Your task to perform on an android device: turn on translation in the chrome app Image 0: 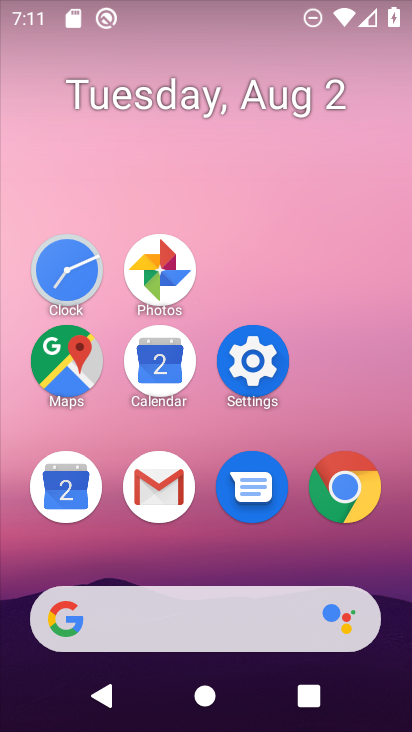
Step 0: click (339, 495)
Your task to perform on an android device: turn on translation in the chrome app Image 1: 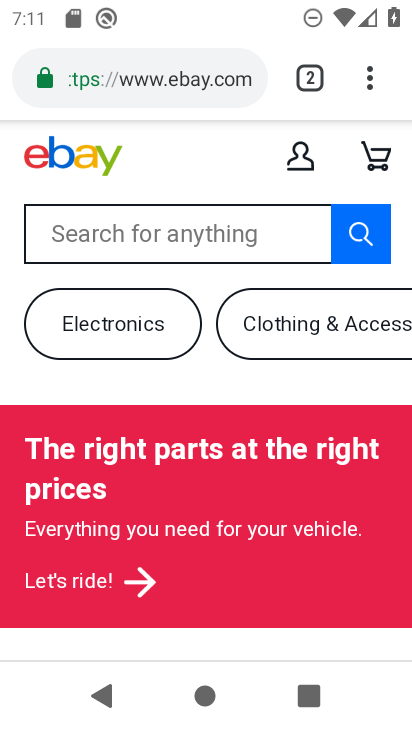
Step 1: click (375, 72)
Your task to perform on an android device: turn on translation in the chrome app Image 2: 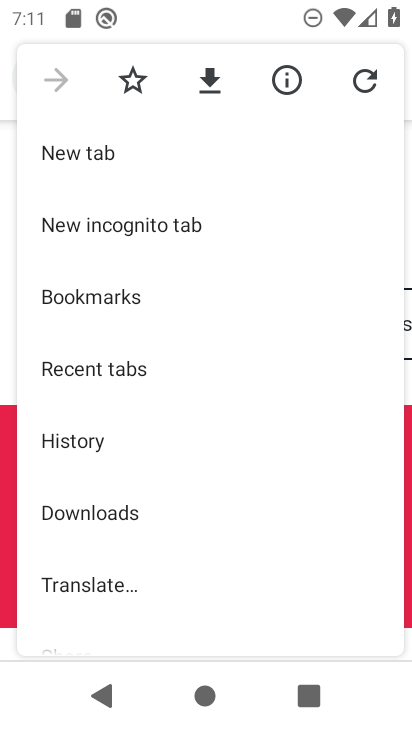
Step 2: drag from (227, 550) to (207, 215)
Your task to perform on an android device: turn on translation in the chrome app Image 3: 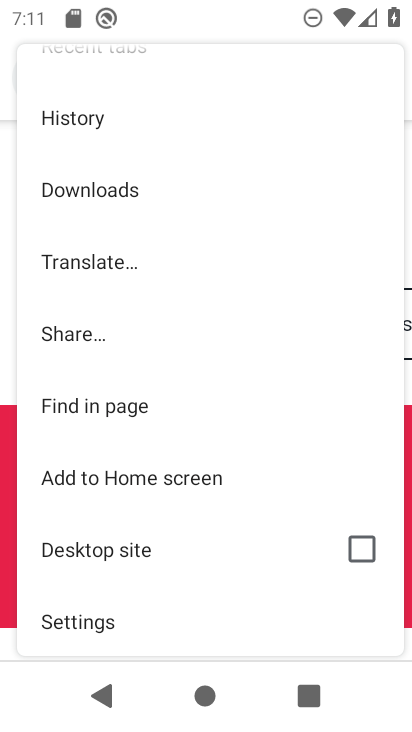
Step 3: click (91, 616)
Your task to perform on an android device: turn on translation in the chrome app Image 4: 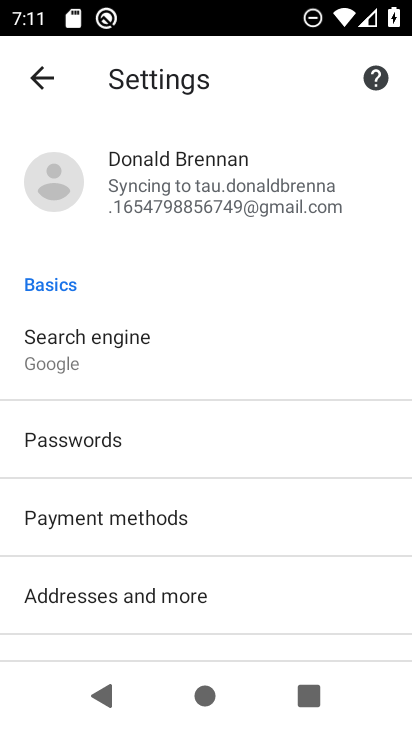
Step 4: drag from (234, 566) to (151, 134)
Your task to perform on an android device: turn on translation in the chrome app Image 5: 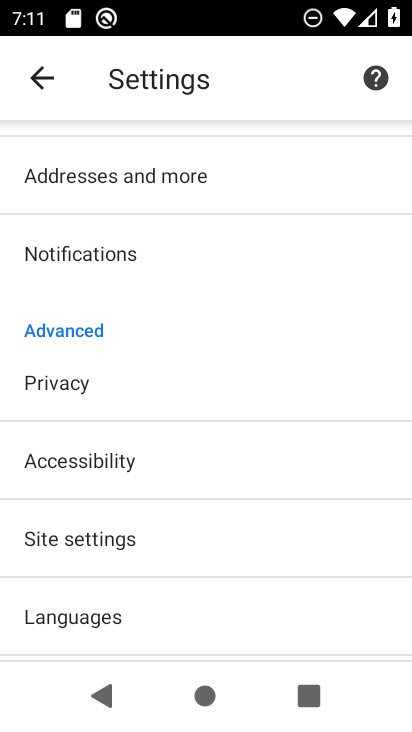
Step 5: click (87, 618)
Your task to perform on an android device: turn on translation in the chrome app Image 6: 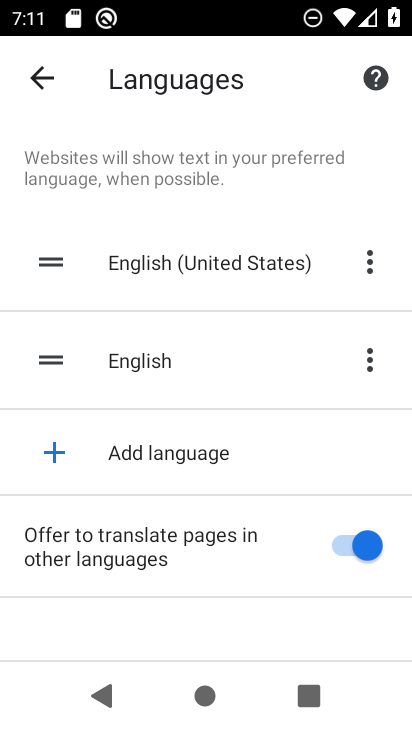
Step 6: task complete